Your task to perform on an android device: change the upload size in google photos Image 0: 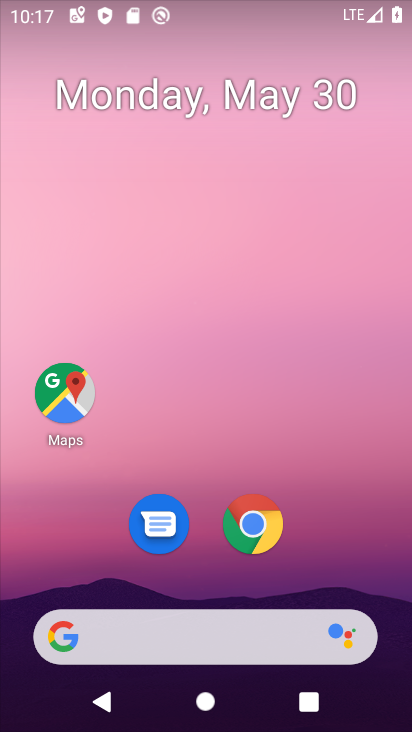
Step 0: drag from (310, 148) to (315, 0)
Your task to perform on an android device: change the upload size in google photos Image 1: 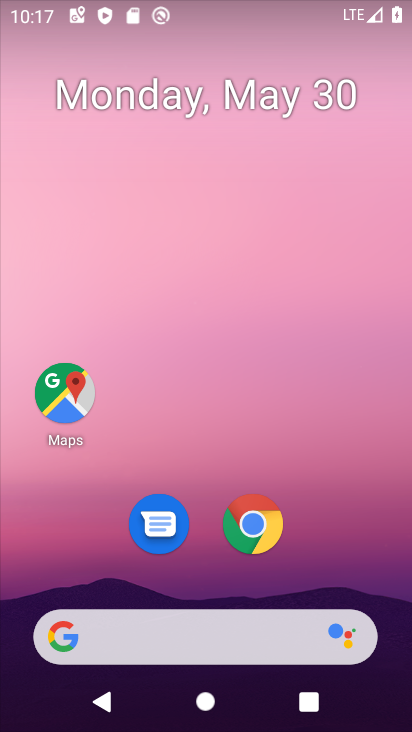
Step 1: drag from (291, 555) to (328, 0)
Your task to perform on an android device: change the upload size in google photos Image 2: 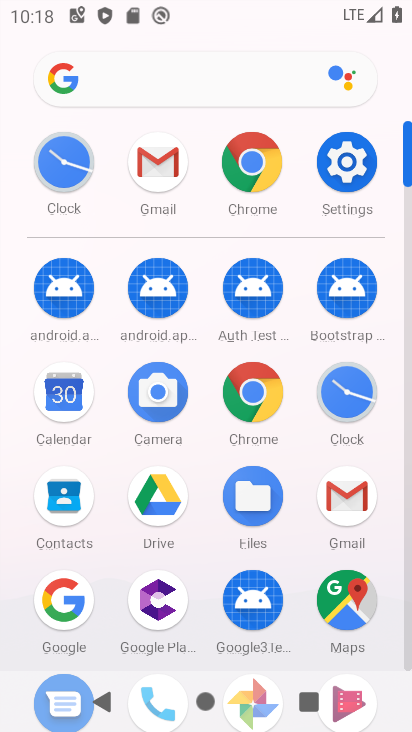
Step 2: drag from (272, 390) to (279, 220)
Your task to perform on an android device: change the upload size in google photos Image 3: 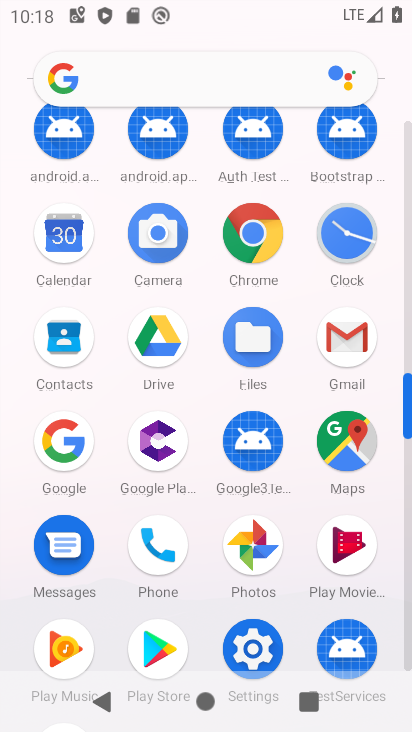
Step 3: click (257, 533)
Your task to perform on an android device: change the upload size in google photos Image 4: 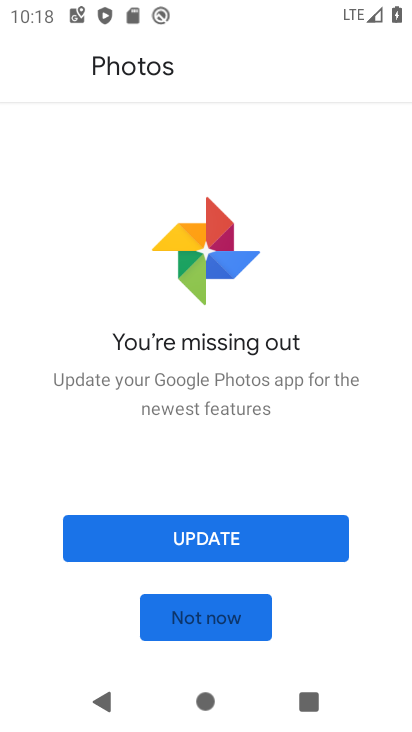
Step 4: click (247, 612)
Your task to perform on an android device: change the upload size in google photos Image 5: 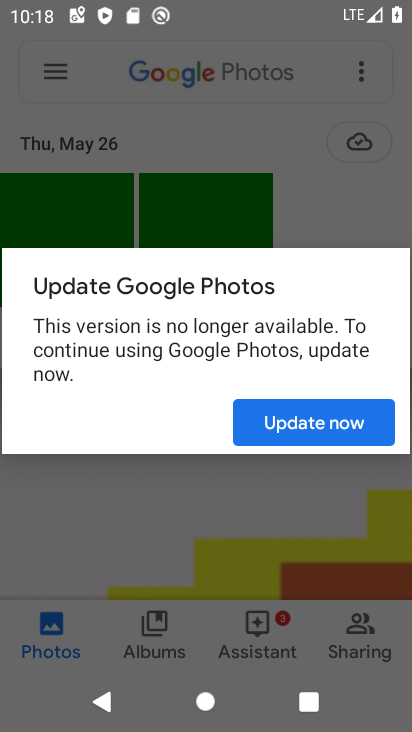
Step 5: click (373, 430)
Your task to perform on an android device: change the upload size in google photos Image 6: 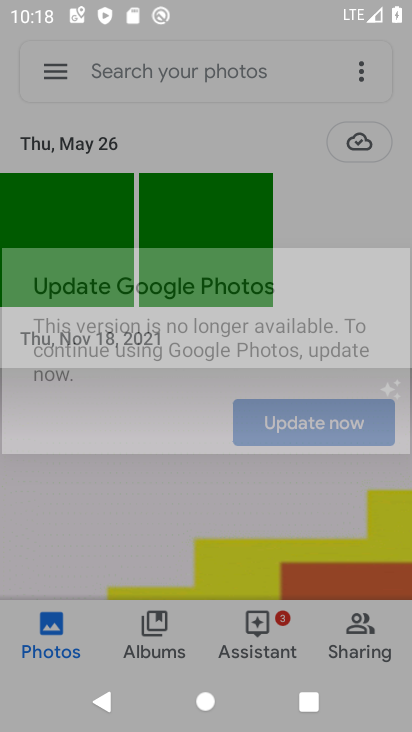
Step 6: click (315, 417)
Your task to perform on an android device: change the upload size in google photos Image 7: 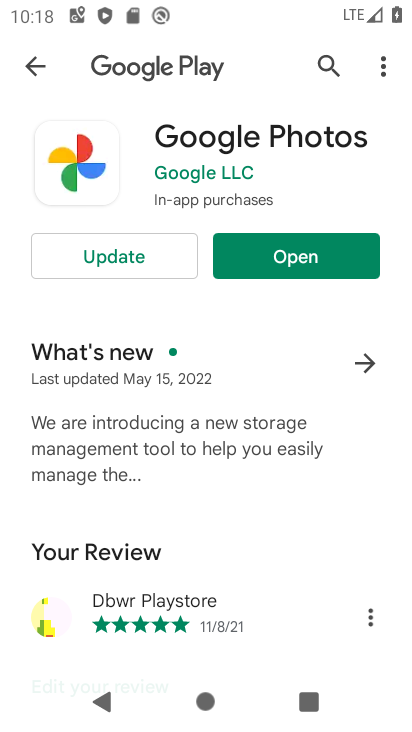
Step 7: click (312, 245)
Your task to perform on an android device: change the upload size in google photos Image 8: 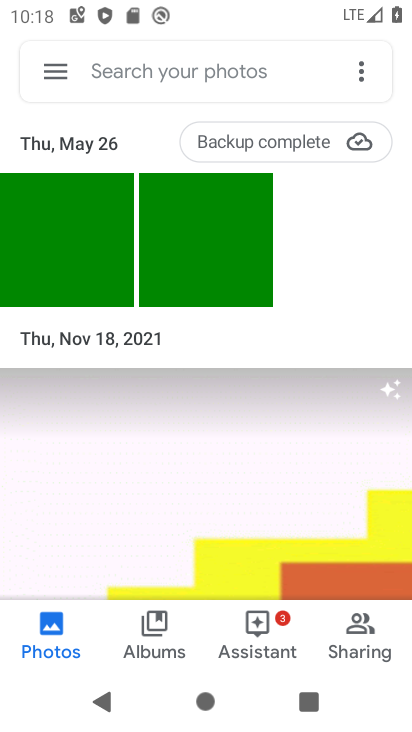
Step 8: click (61, 73)
Your task to perform on an android device: change the upload size in google photos Image 9: 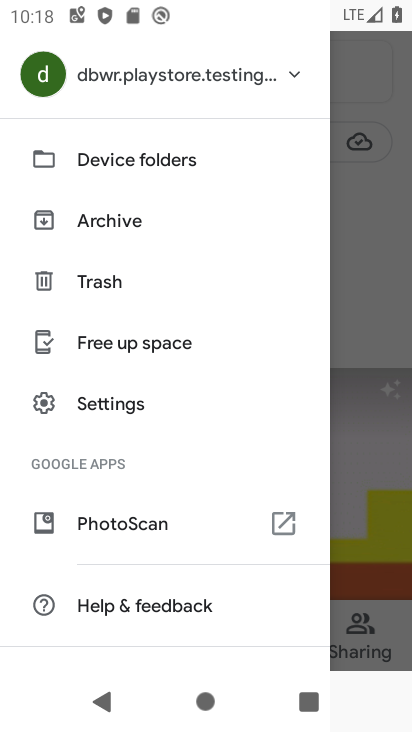
Step 9: click (103, 392)
Your task to perform on an android device: change the upload size in google photos Image 10: 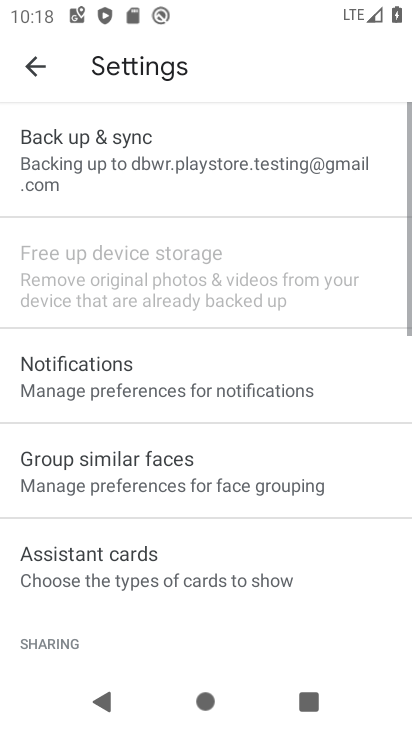
Step 10: click (92, 157)
Your task to perform on an android device: change the upload size in google photos Image 11: 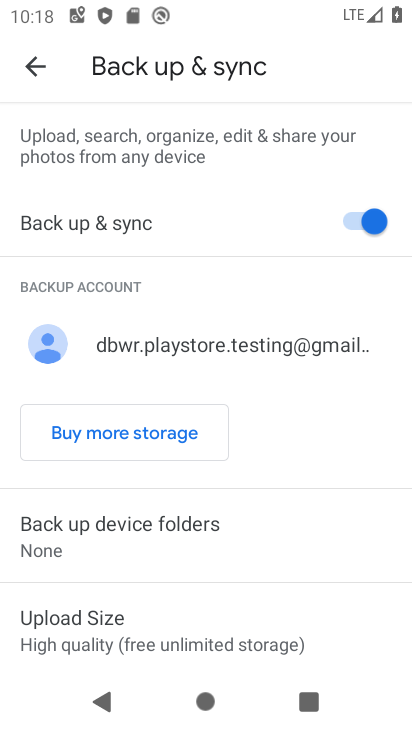
Step 11: click (201, 640)
Your task to perform on an android device: change the upload size in google photos Image 12: 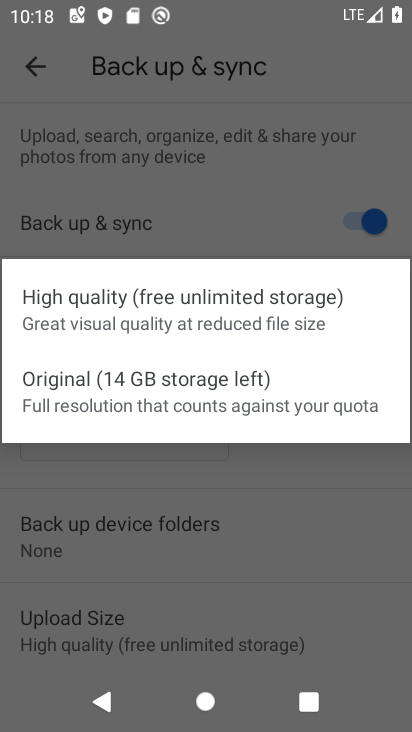
Step 12: click (167, 398)
Your task to perform on an android device: change the upload size in google photos Image 13: 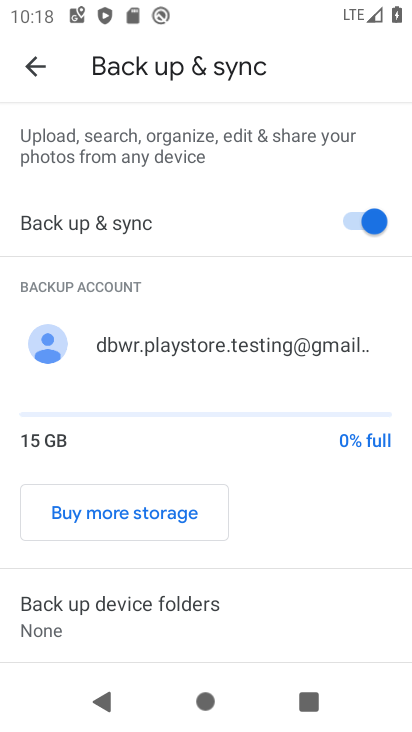
Step 13: task complete